Your task to perform on an android device: turn off javascript in the chrome app Image 0: 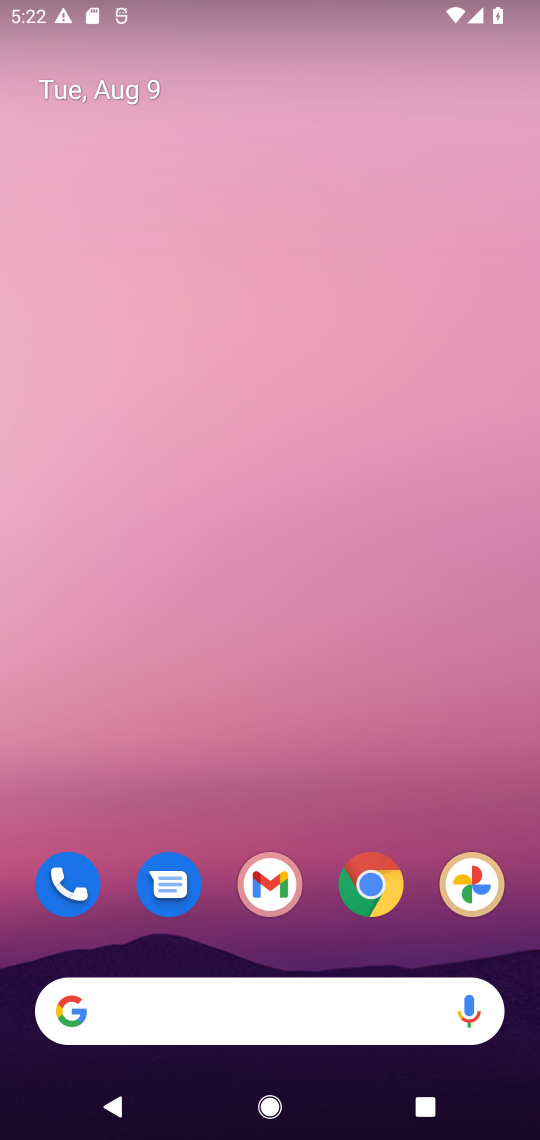
Step 0: click (370, 887)
Your task to perform on an android device: turn off javascript in the chrome app Image 1: 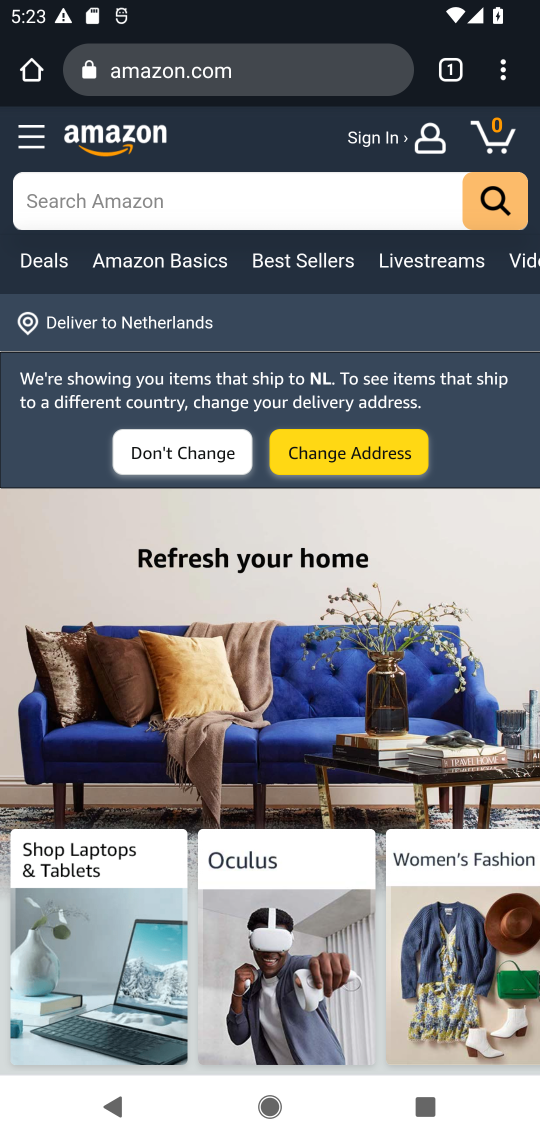
Step 1: drag from (511, 77) to (326, 879)
Your task to perform on an android device: turn off javascript in the chrome app Image 2: 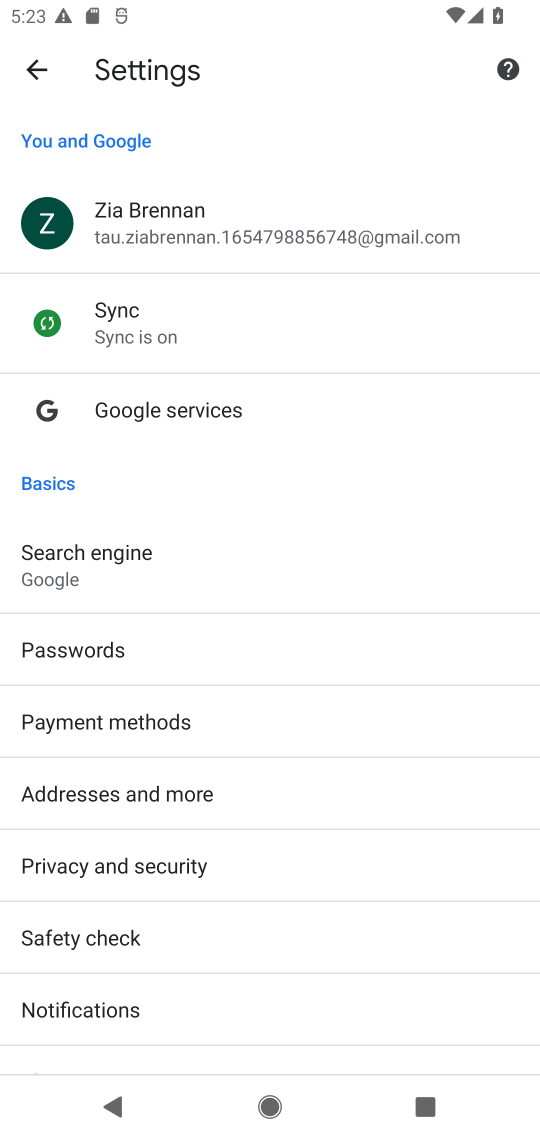
Step 2: drag from (135, 870) to (259, 625)
Your task to perform on an android device: turn off javascript in the chrome app Image 3: 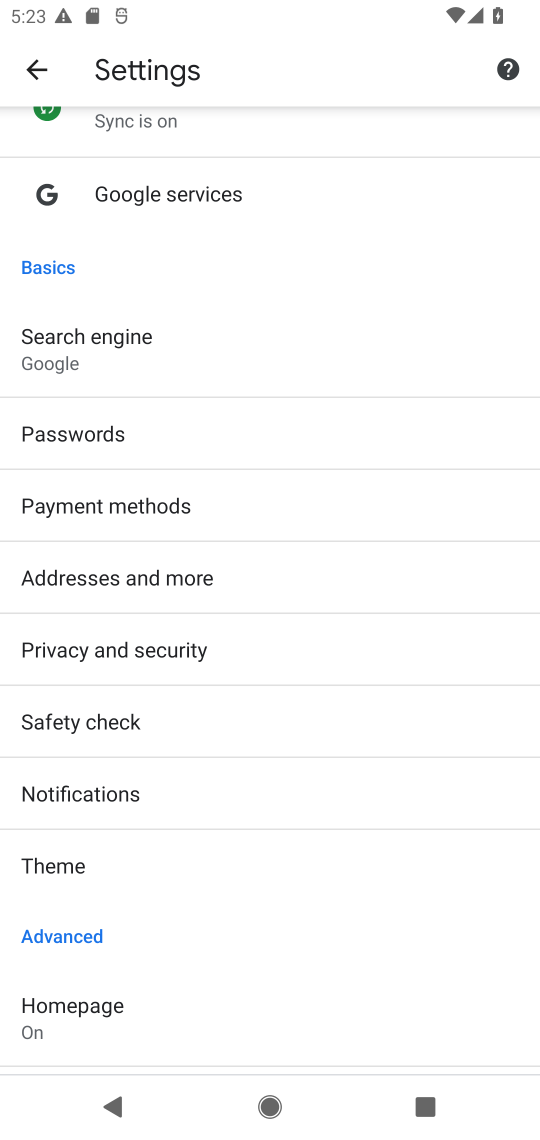
Step 3: drag from (148, 895) to (322, 629)
Your task to perform on an android device: turn off javascript in the chrome app Image 4: 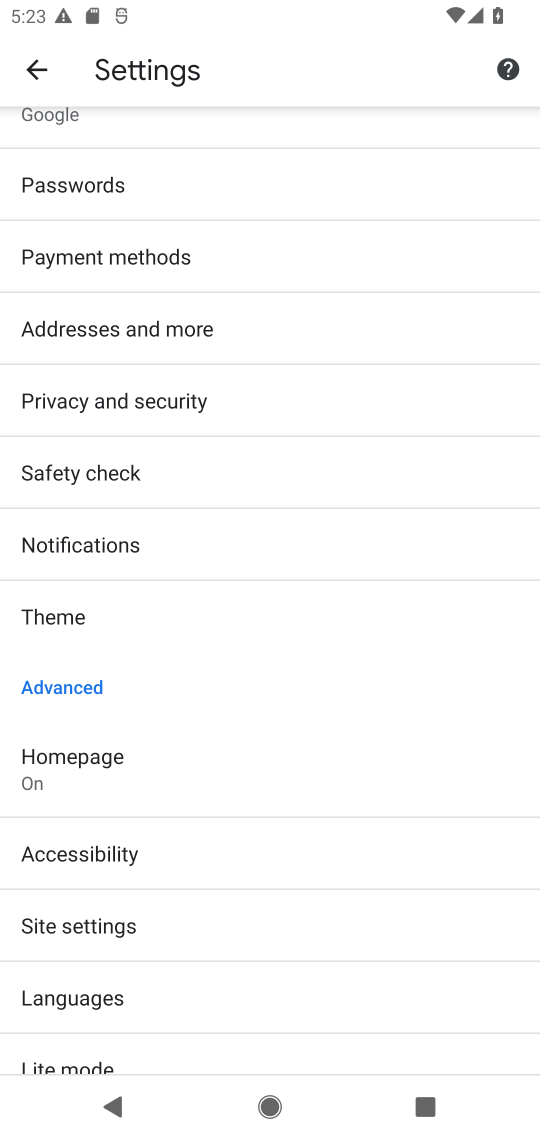
Step 4: click (107, 936)
Your task to perform on an android device: turn off javascript in the chrome app Image 5: 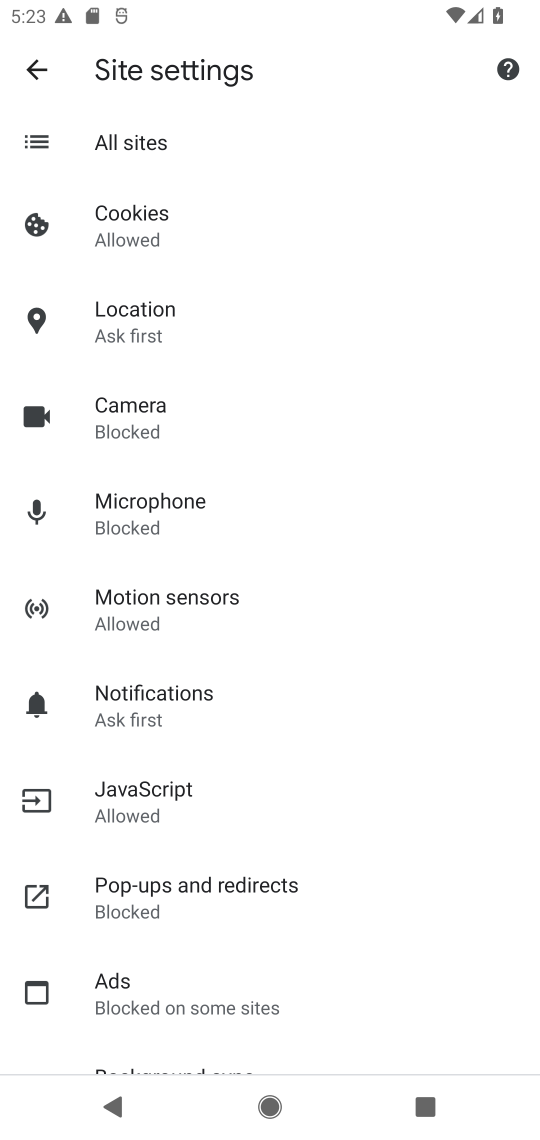
Step 5: click (147, 782)
Your task to perform on an android device: turn off javascript in the chrome app Image 6: 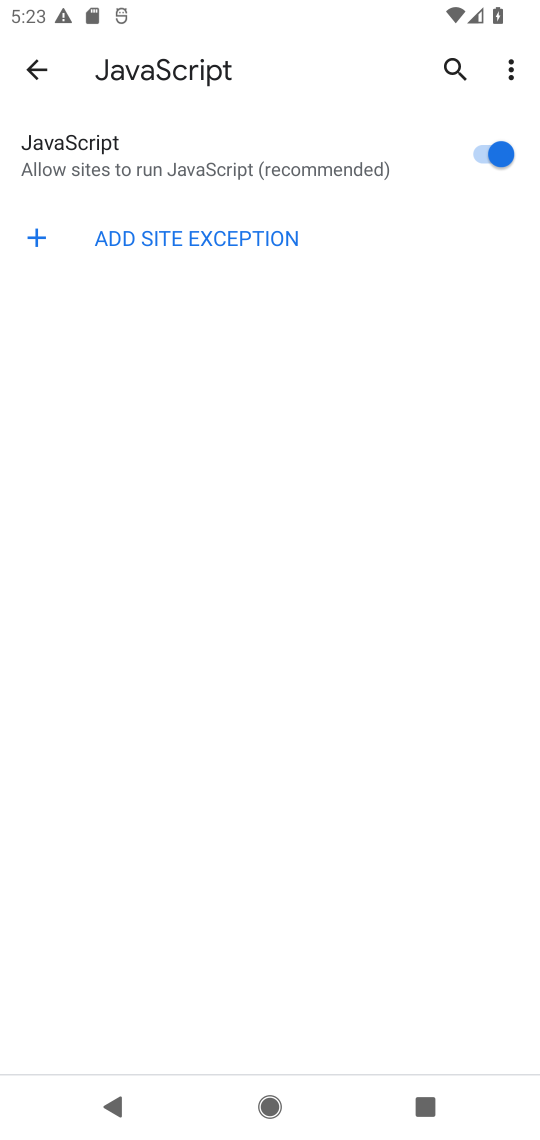
Step 6: click (493, 153)
Your task to perform on an android device: turn off javascript in the chrome app Image 7: 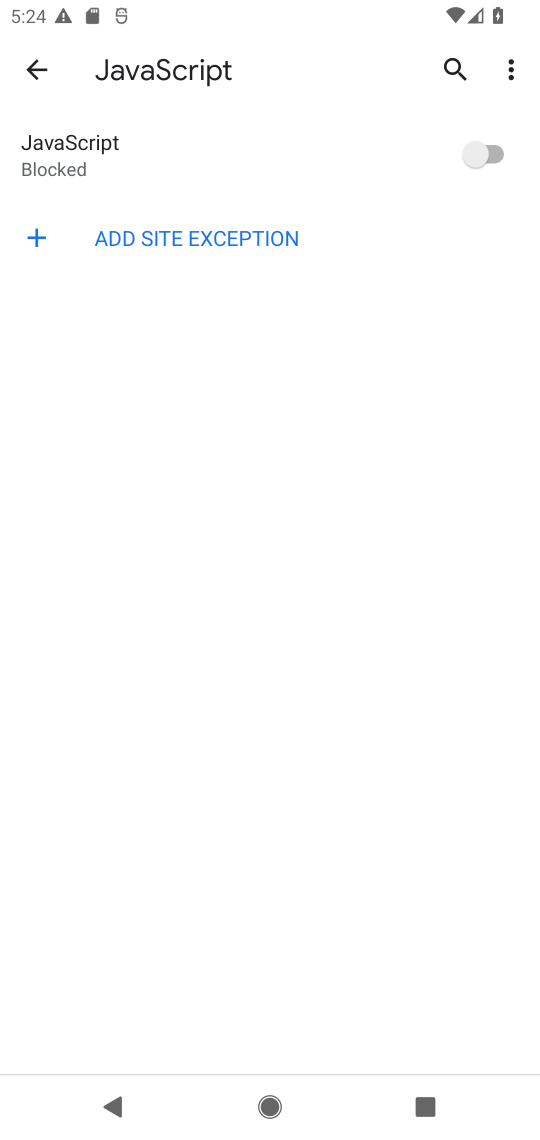
Step 7: task complete